Your task to perform on an android device: Search for jbl charge 4 on amazon.com, select the first entry, add it to the cart, then select checkout. Image 0: 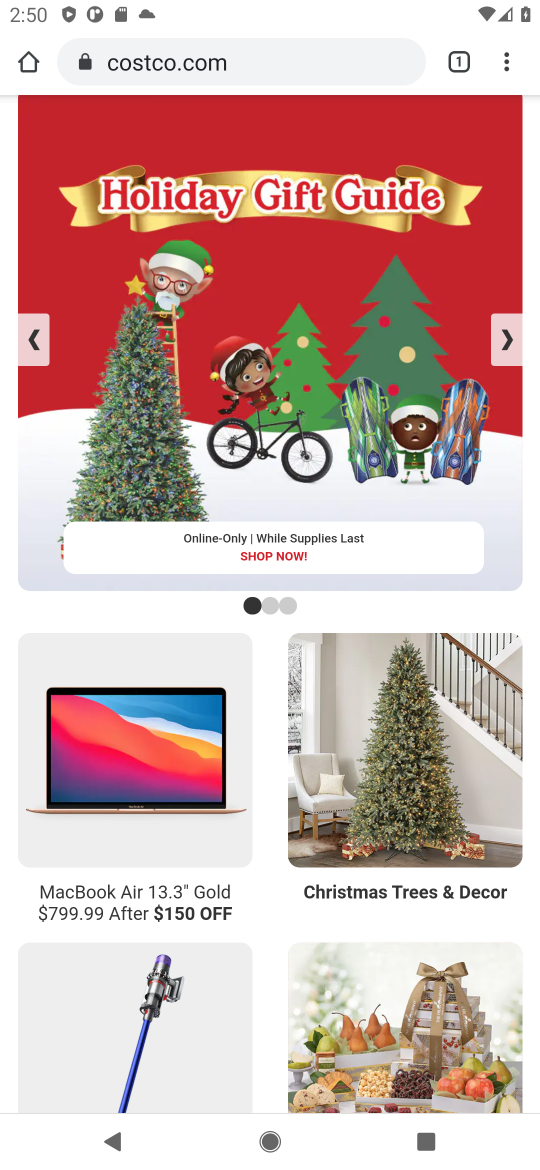
Step 0: click (282, 55)
Your task to perform on an android device: Search for jbl charge 4 on amazon.com, select the first entry, add it to the cart, then select checkout. Image 1: 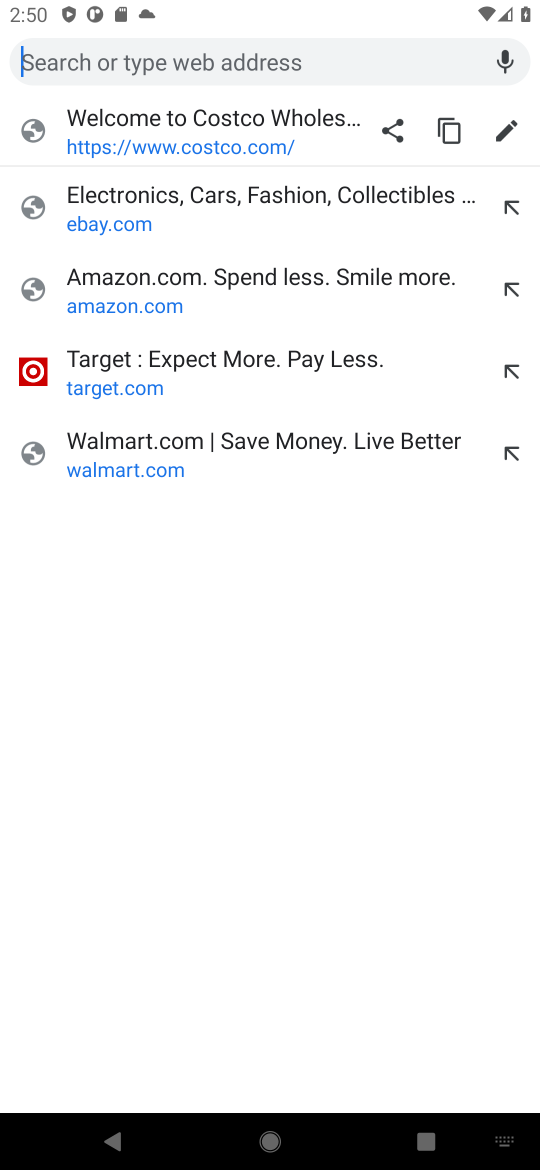
Step 1: click (210, 282)
Your task to perform on an android device: Search for jbl charge 4 on amazon.com, select the first entry, add it to the cart, then select checkout. Image 2: 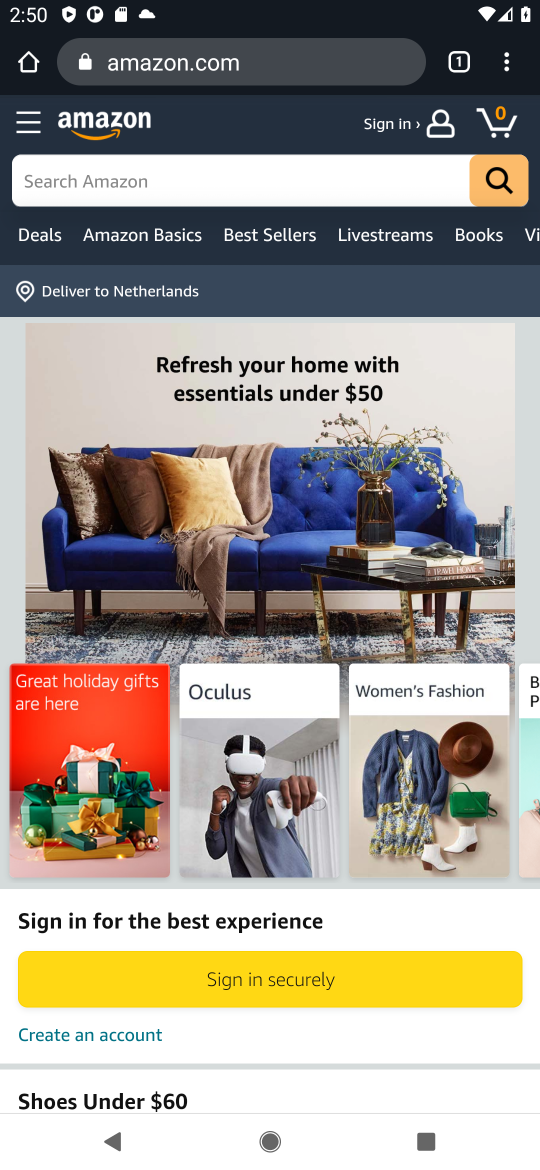
Step 2: click (139, 176)
Your task to perform on an android device: Search for jbl charge 4 on amazon.com, select the first entry, add it to the cart, then select checkout. Image 3: 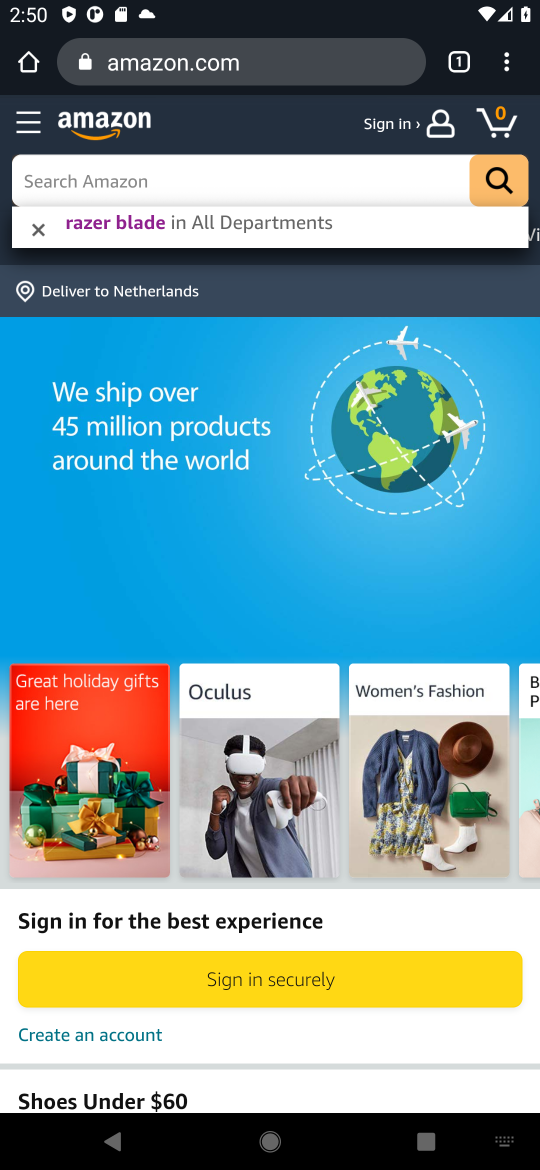
Step 3: type "jbl charge 4 "
Your task to perform on an android device: Search for jbl charge 4 on amazon.com, select the first entry, add it to the cart, then select checkout. Image 4: 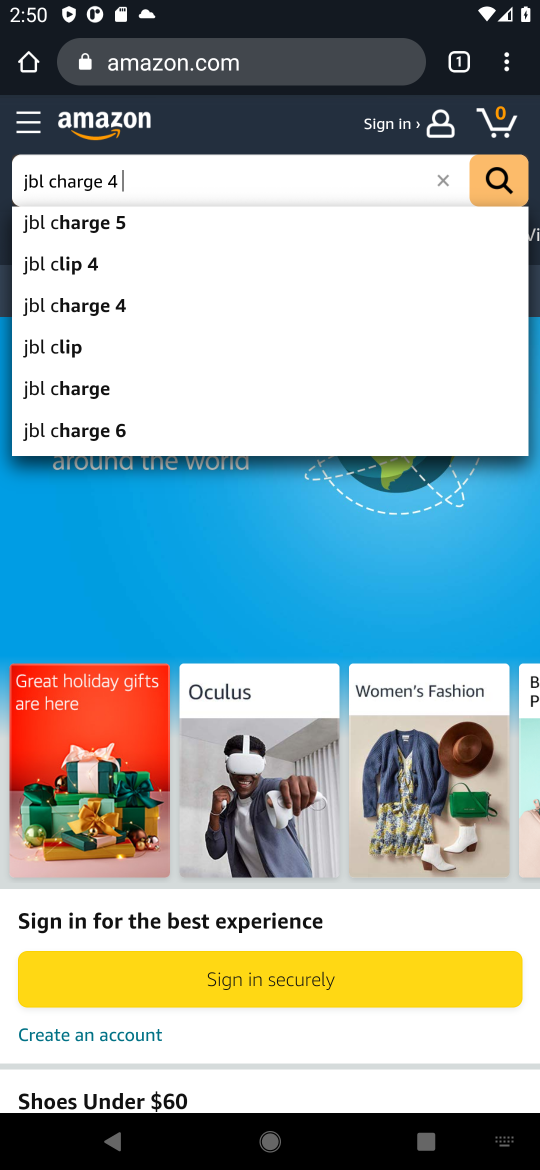
Step 4: press enter
Your task to perform on an android device: Search for jbl charge 4 on amazon.com, select the first entry, add it to the cart, then select checkout. Image 5: 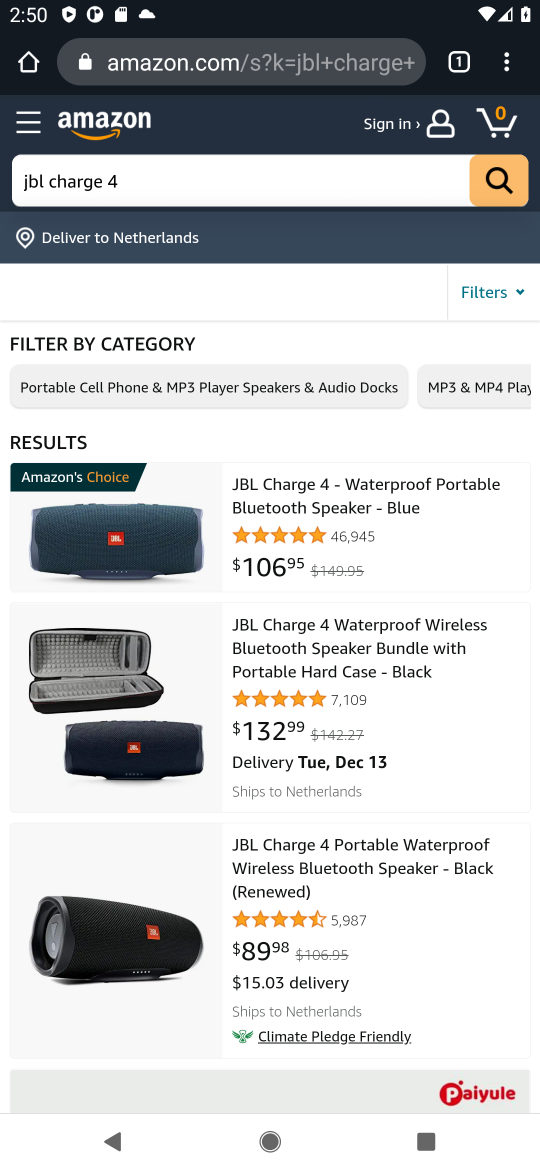
Step 5: click (357, 490)
Your task to perform on an android device: Search for jbl charge 4 on amazon.com, select the first entry, add it to the cart, then select checkout. Image 6: 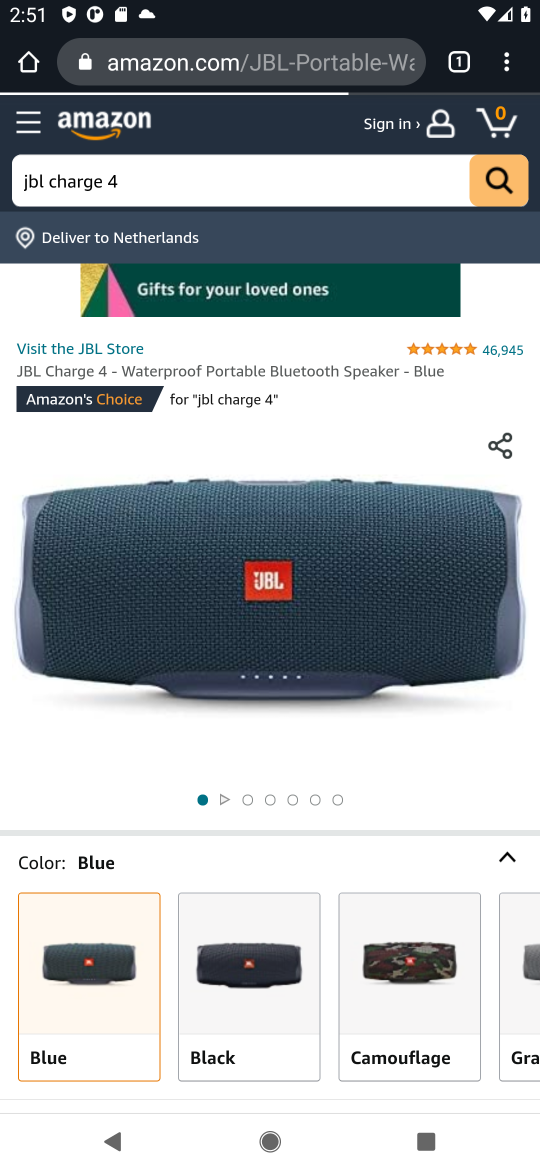
Step 6: drag from (402, 886) to (429, 472)
Your task to perform on an android device: Search for jbl charge 4 on amazon.com, select the first entry, add it to the cart, then select checkout. Image 7: 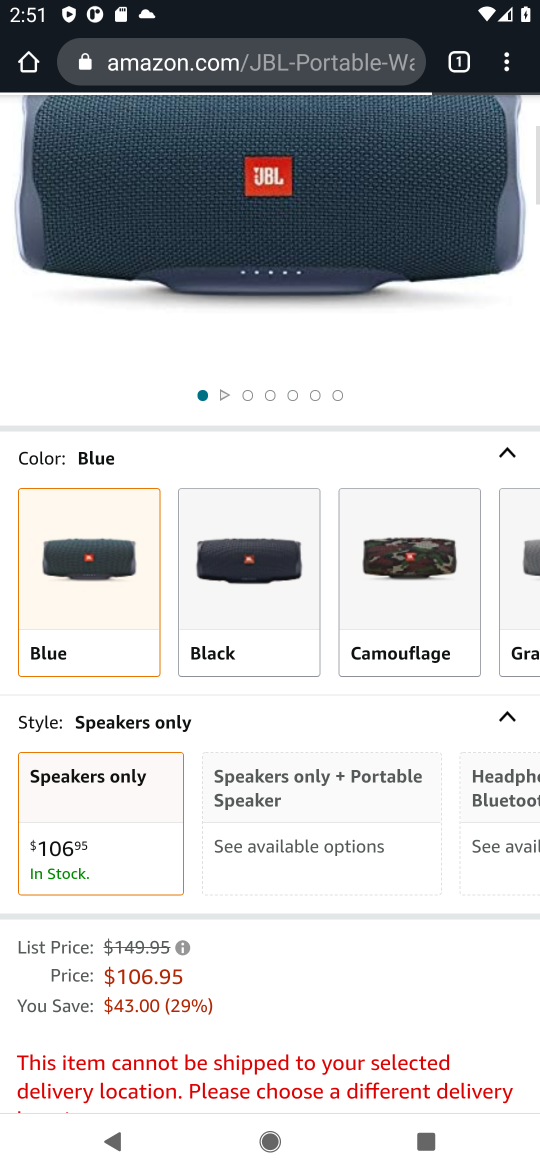
Step 7: drag from (492, 944) to (451, 480)
Your task to perform on an android device: Search for jbl charge 4 on amazon.com, select the first entry, add it to the cart, then select checkout. Image 8: 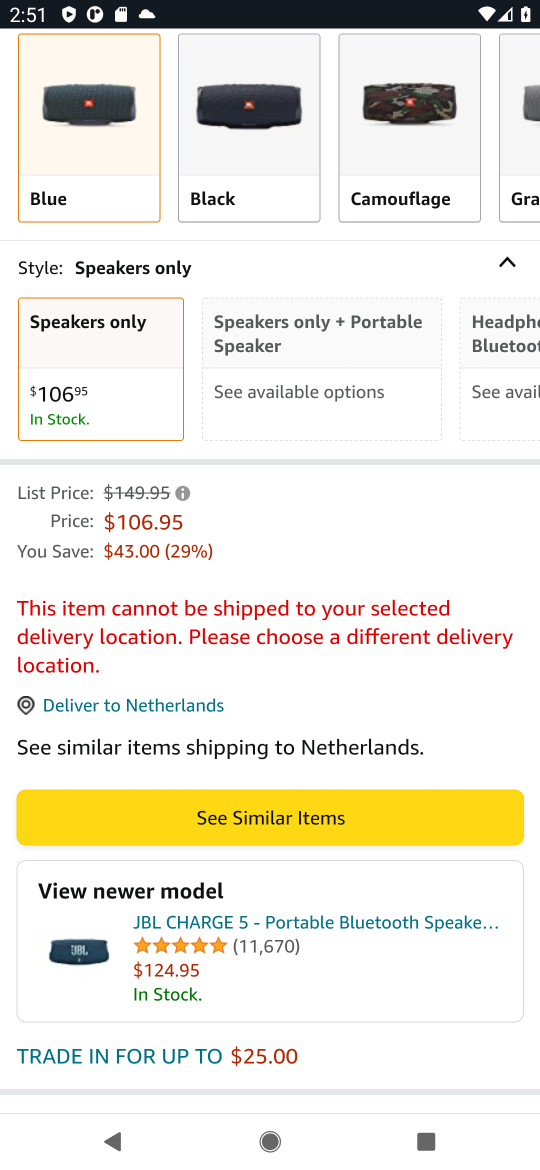
Step 8: press back button
Your task to perform on an android device: Search for jbl charge 4 on amazon.com, select the first entry, add it to the cart, then select checkout. Image 9: 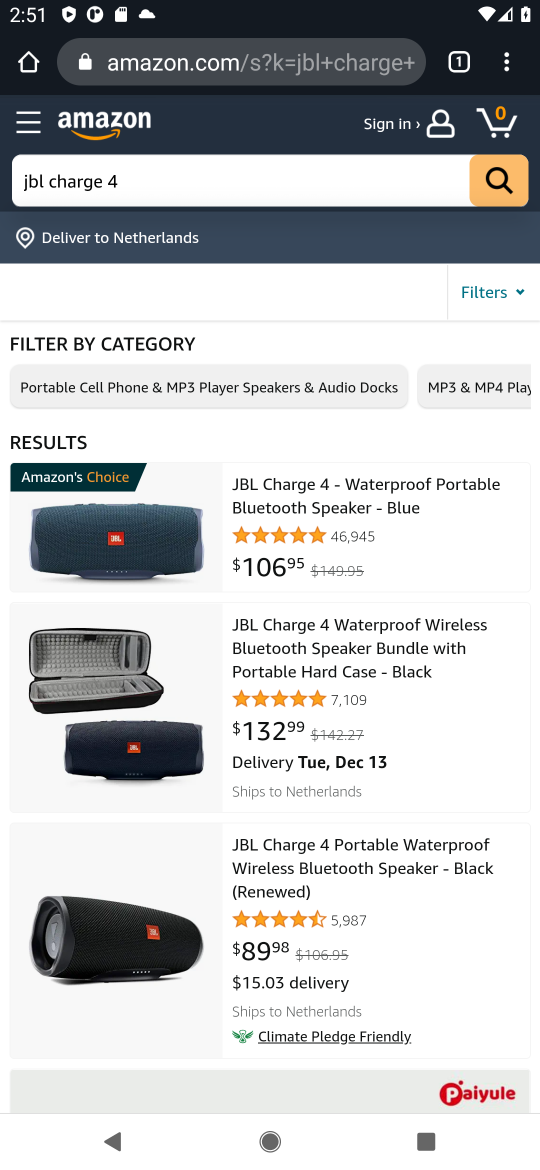
Step 9: click (308, 652)
Your task to perform on an android device: Search for jbl charge 4 on amazon.com, select the first entry, add it to the cart, then select checkout. Image 10: 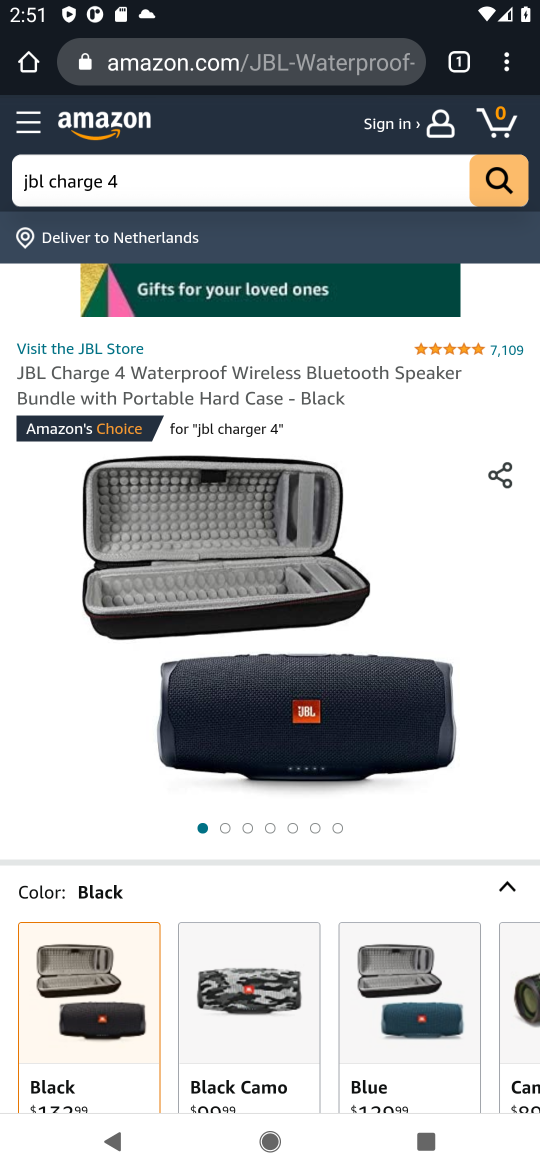
Step 10: drag from (352, 741) to (376, 212)
Your task to perform on an android device: Search for jbl charge 4 on amazon.com, select the first entry, add it to the cart, then select checkout. Image 11: 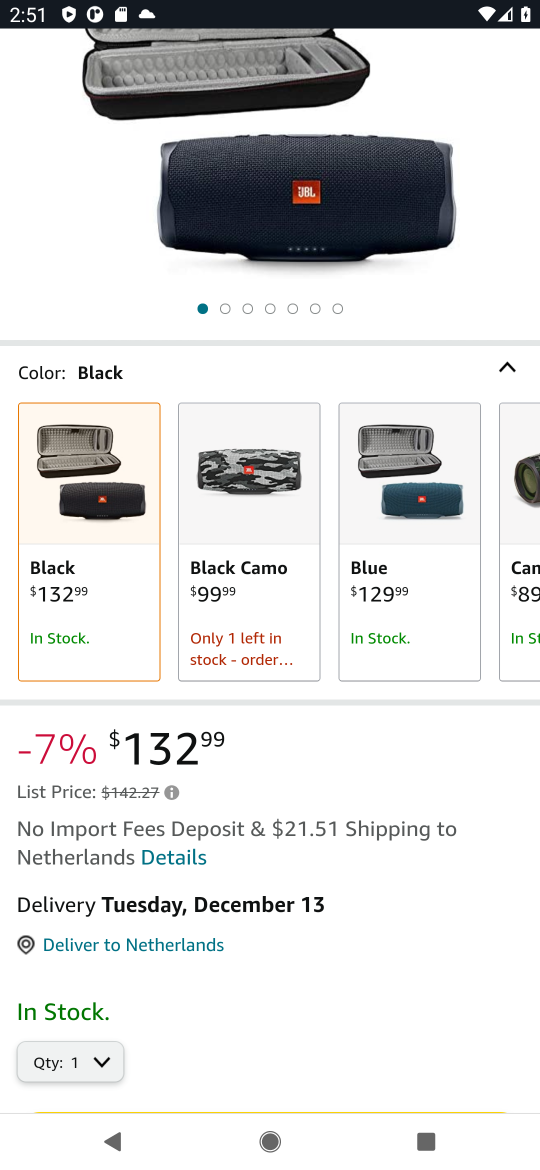
Step 11: drag from (431, 885) to (439, 409)
Your task to perform on an android device: Search for jbl charge 4 on amazon.com, select the first entry, add it to the cart, then select checkout. Image 12: 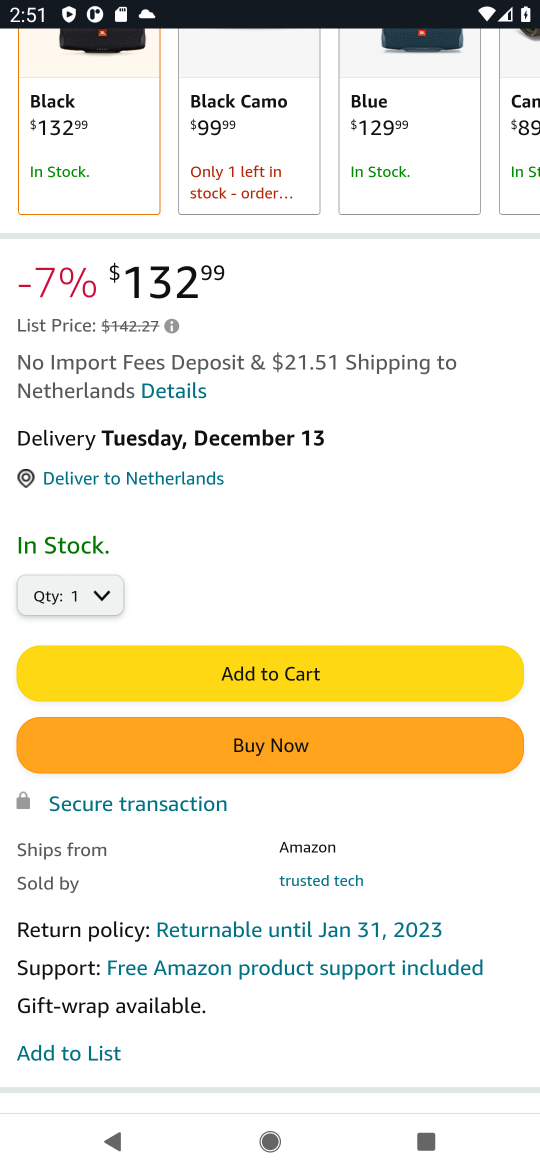
Step 12: click (331, 668)
Your task to perform on an android device: Search for jbl charge 4 on amazon.com, select the first entry, add it to the cart, then select checkout. Image 13: 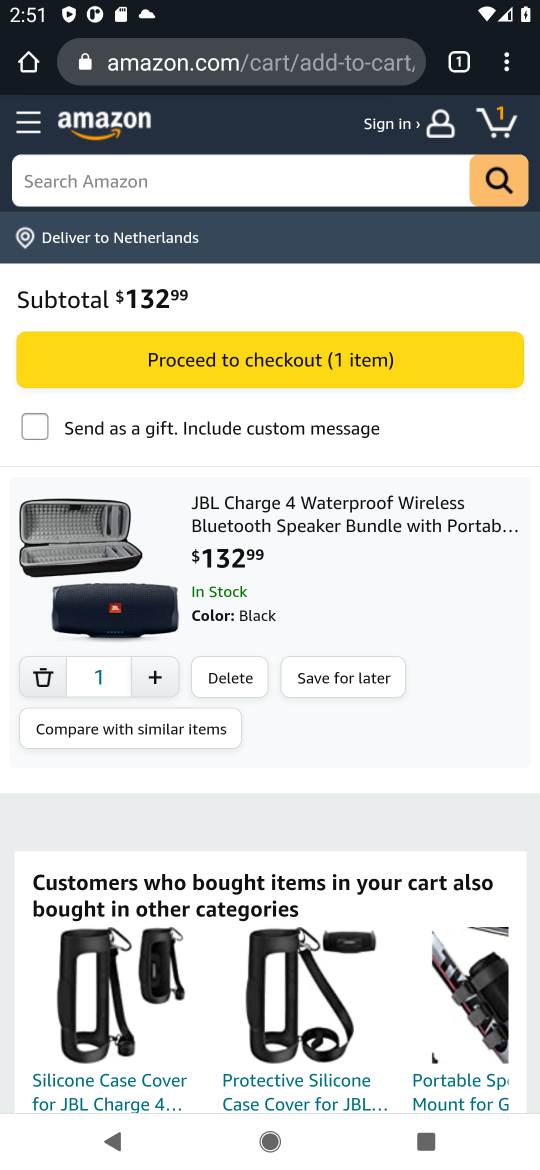
Step 13: task complete